Your task to perform on an android device: turn on showing notifications on the lock screen Image 0: 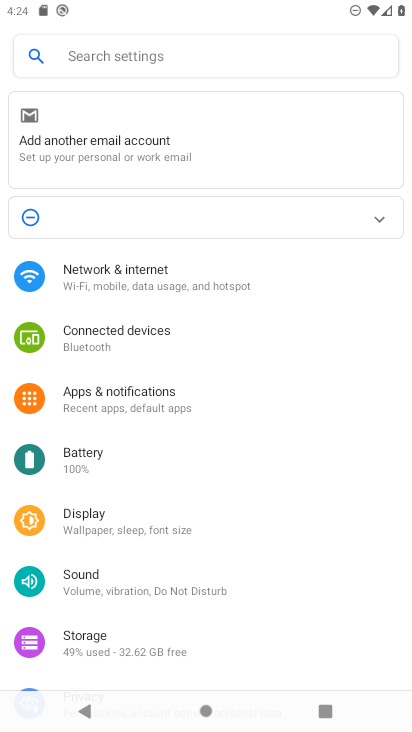
Step 0: click (123, 396)
Your task to perform on an android device: turn on showing notifications on the lock screen Image 1: 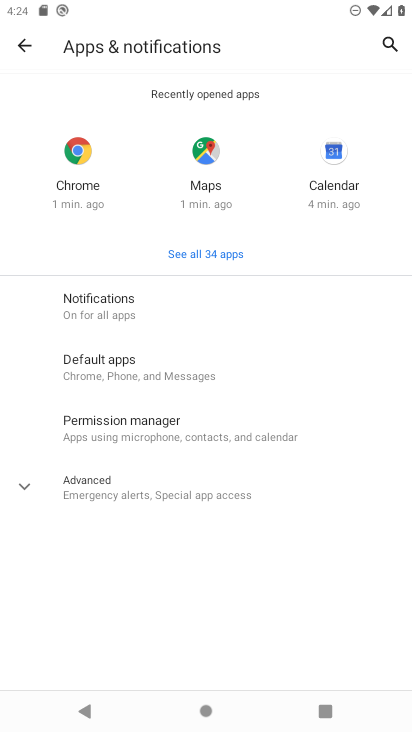
Step 1: click (100, 299)
Your task to perform on an android device: turn on showing notifications on the lock screen Image 2: 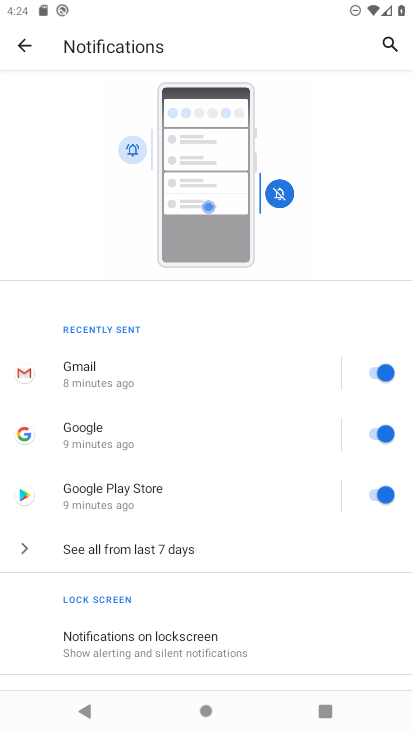
Step 2: drag from (143, 622) to (114, 230)
Your task to perform on an android device: turn on showing notifications on the lock screen Image 3: 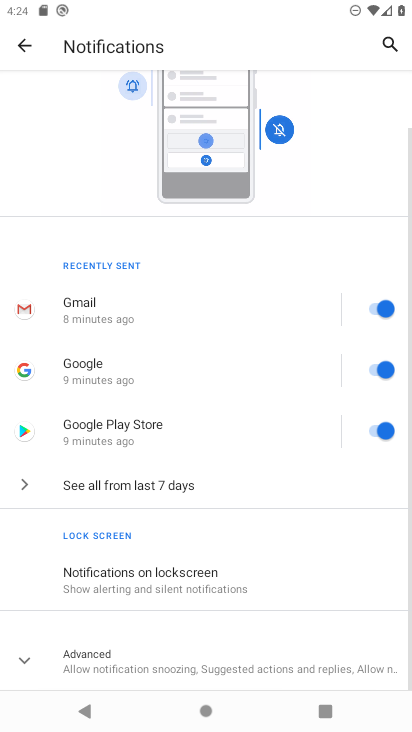
Step 3: click (154, 574)
Your task to perform on an android device: turn on showing notifications on the lock screen Image 4: 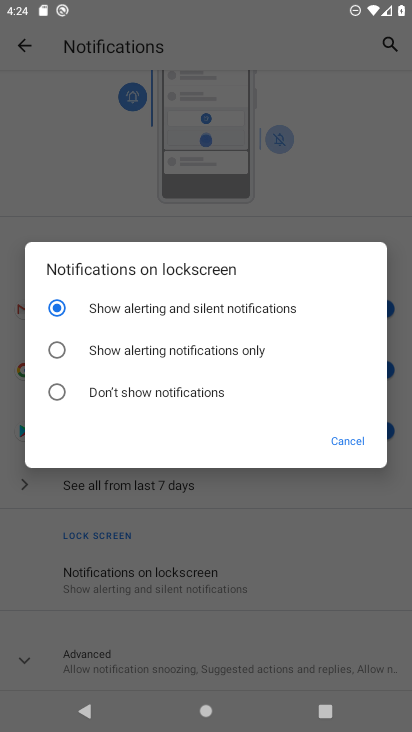
Step 4: click (349, 439)
Your task to perform on an android device: turn on showing notifications on the lock screen Image 5: 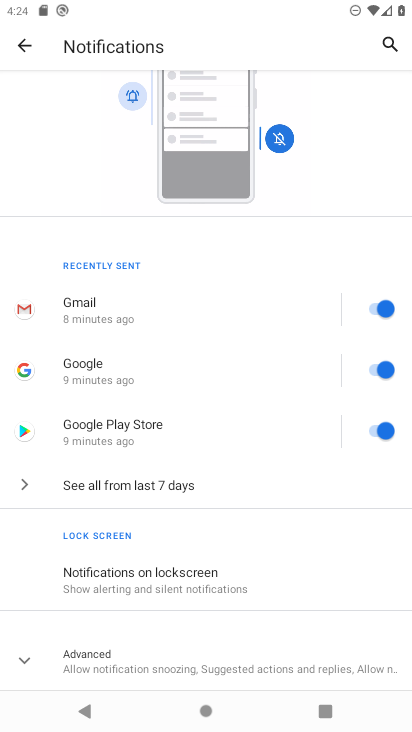
Step 5: task complete